Your task to perform on an android device: toggle airplane mode Image 0: 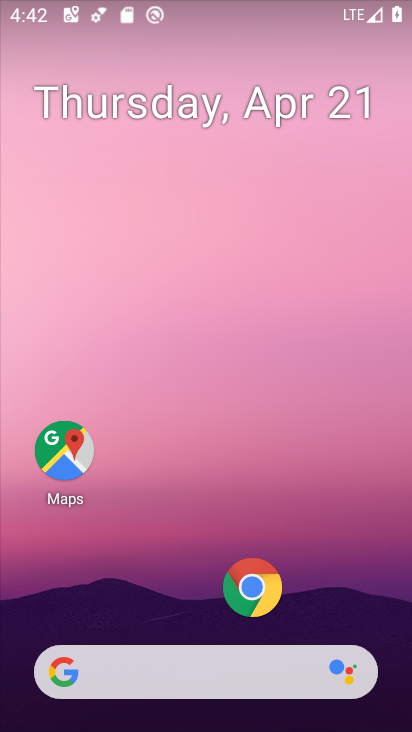
Step 0: drag from (137, 631) to (254, 103)
Your task to perform on an android device: toggle airplane mode Image 1: 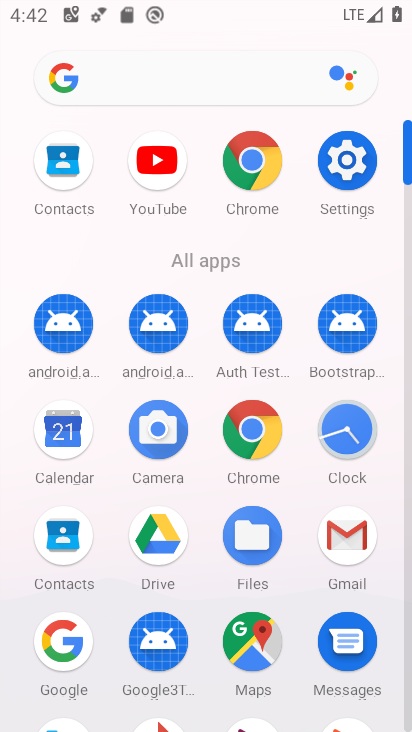
Step 1: click (351, 160)
Your task to perform on an android device: toggle airplane mode Image 2: 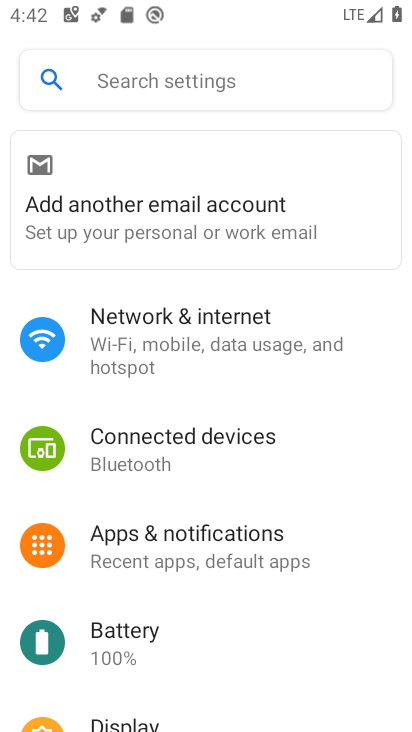
Step 2: click (240, 363)
Your task to perform on an android device: toggle airplane mode Image 3: 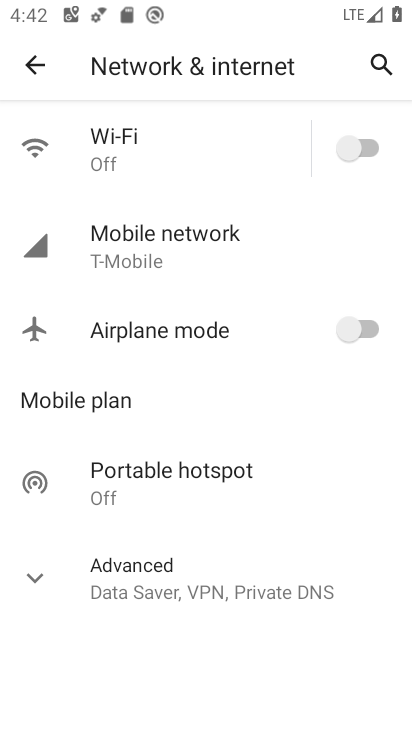
Step 3: click (376, 330)
Your task to perform on an android device: toggle airplane mode Image 4: 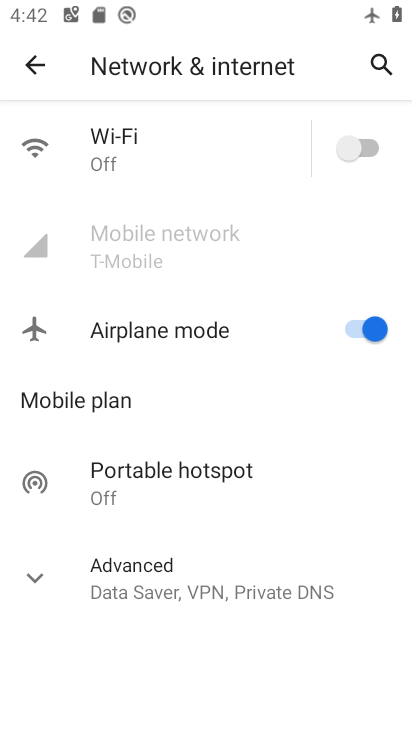
Step 4: task complete